Your task to perform on an android device: add a contact Image 0: 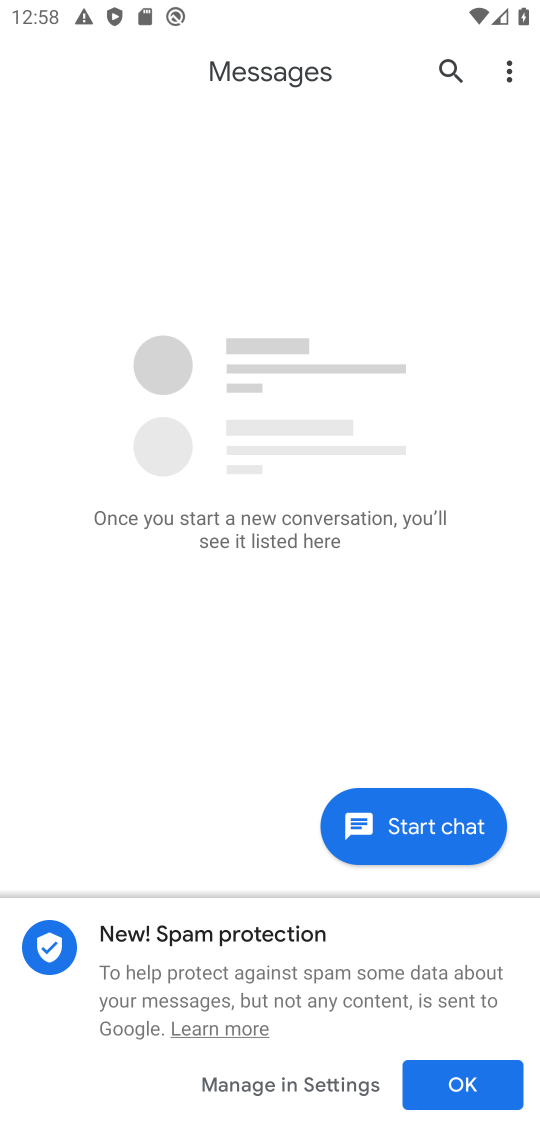
Step 0: press home button
Your task to perform on an android device: add a contact Image 1: 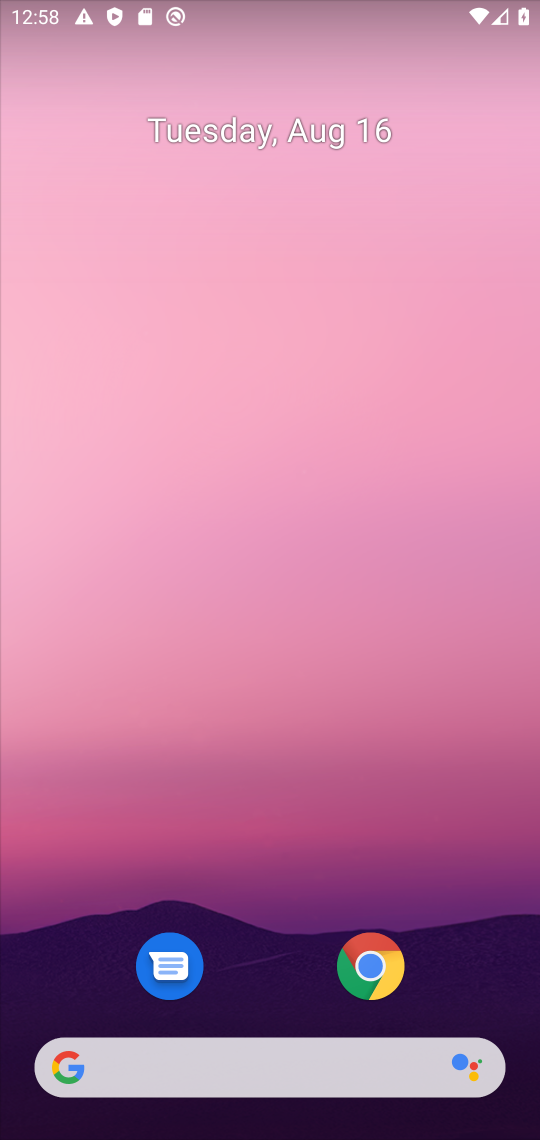
Step 1: drag from (264, 891) to (162, 96)
Your task to perform on an android device: add a contact Image 2: 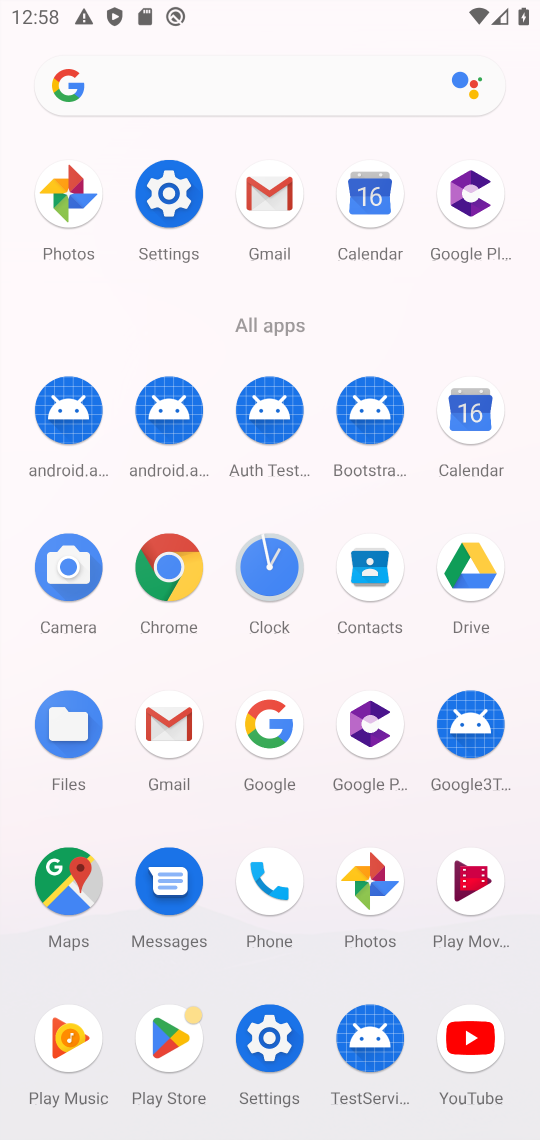
Step 2: click (356, 561)
Your task to perform on an android device: add a contact Image 3: 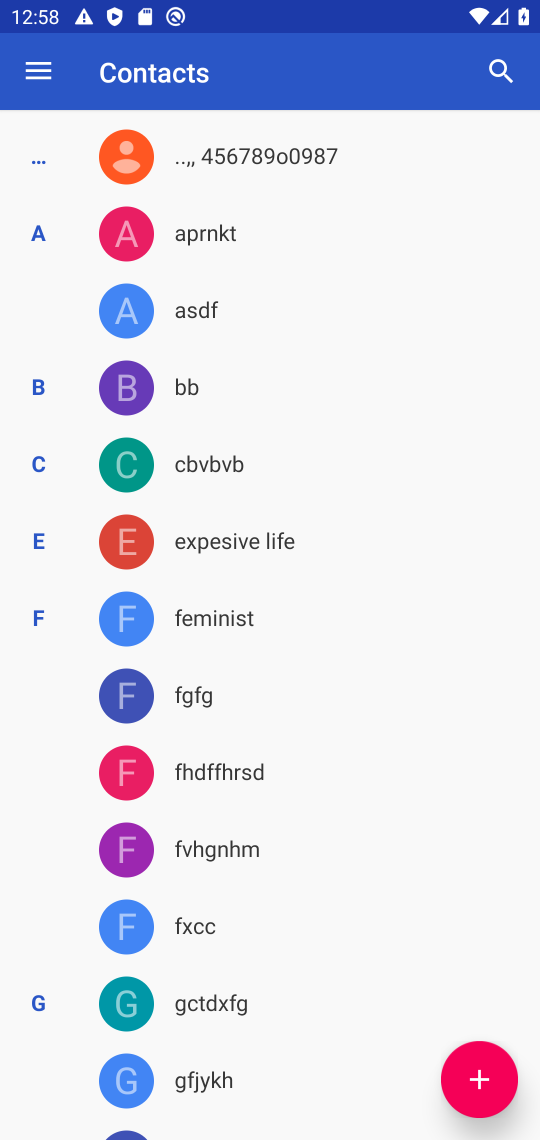
Step 3: click (484, 1083)
Your task to perform on an android device: add a contact Image 4: 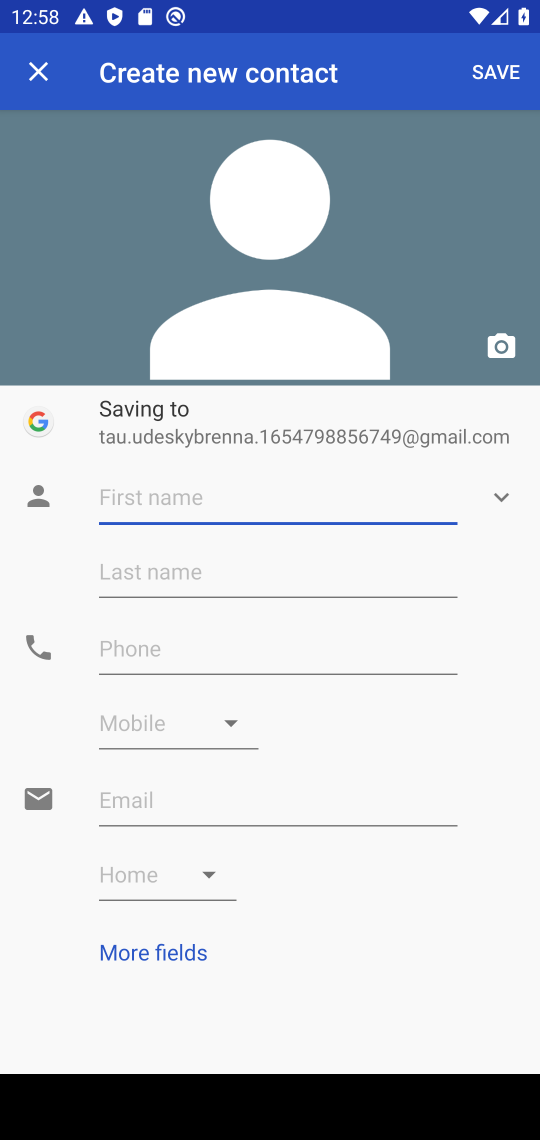
Step 4: type "hhhh"
Your task to perform on an android device: add a contact Image 5: 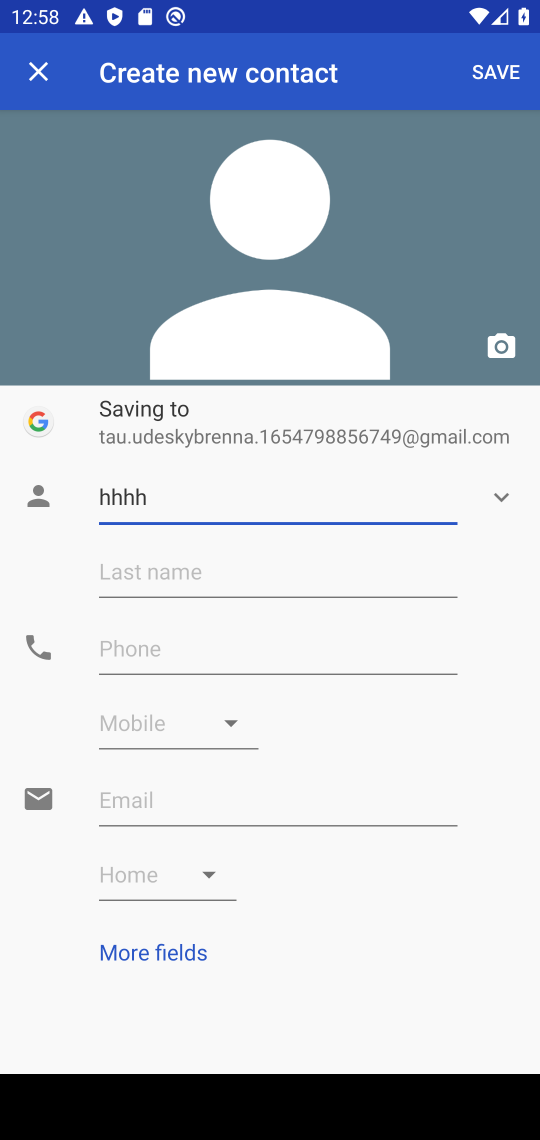
Step 5: click (160, 635)
Your task to perform on an android device: add a contact Image 6: 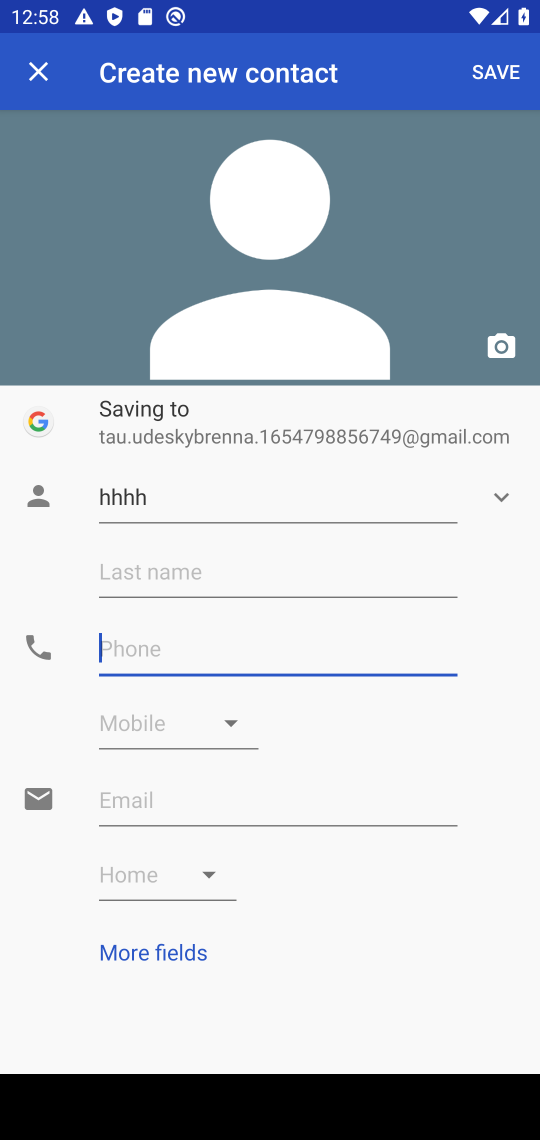
Step 6: type "888"
Your task to perform on an android device: add a contact Image 7: 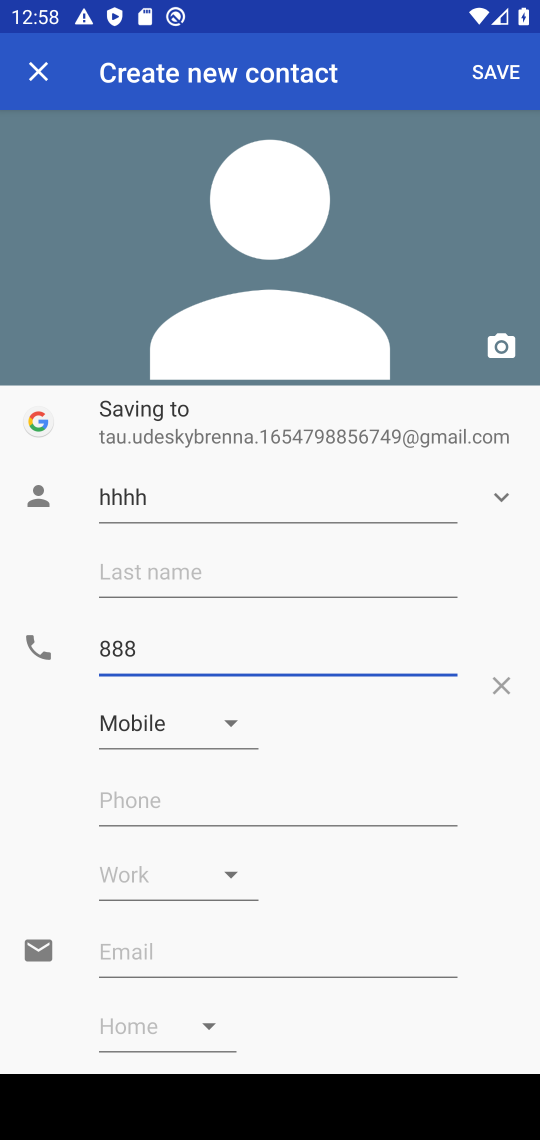
Step 7: click (510, 65)
Your task to perform on an android device: add a contact Image 8: 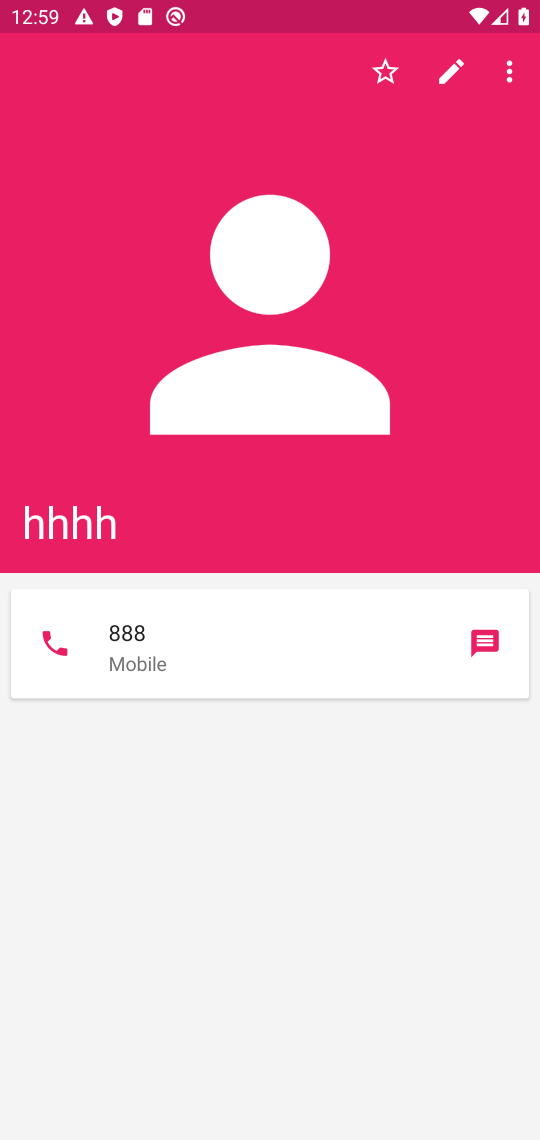
Step 8: task complete